Your task to perform on an android device: turn on wifi Image 0: 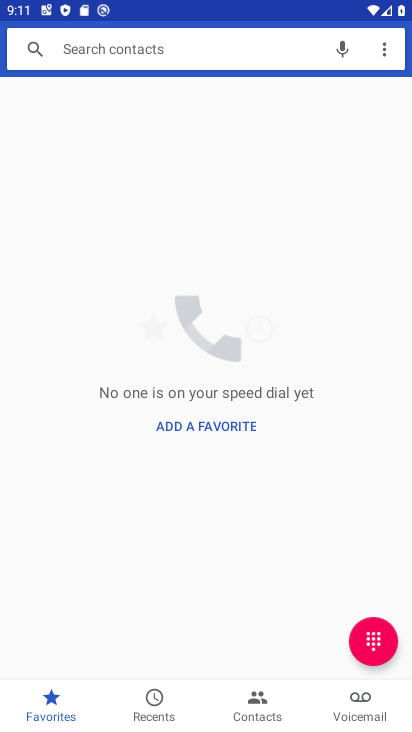
Step 0: press home button
Your task to perform on an android device: turn on wifi Image 1: 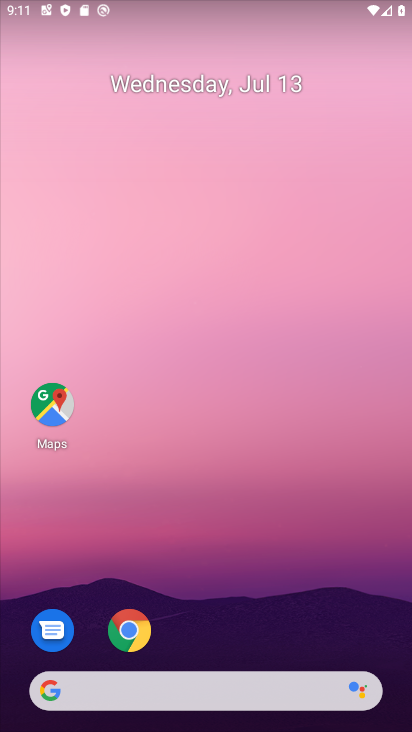
Step 1: drag from (258, 563) to (260, 156)
Your task to perform on an android device: turn on wifi Image 2: 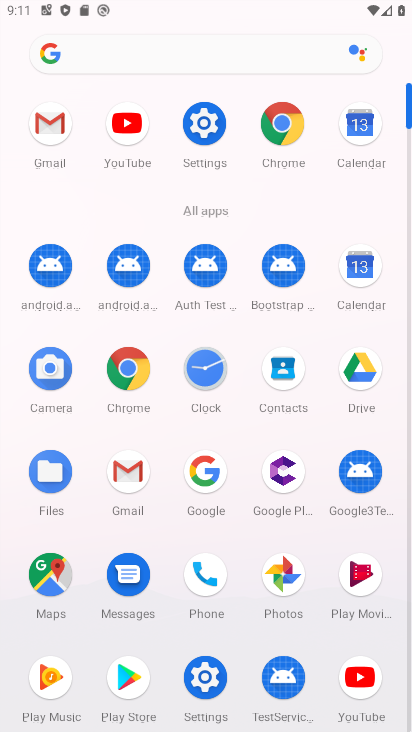
Step 2: click (197, 120)
Your task to perform on an android device: turn on wifi Image 3: 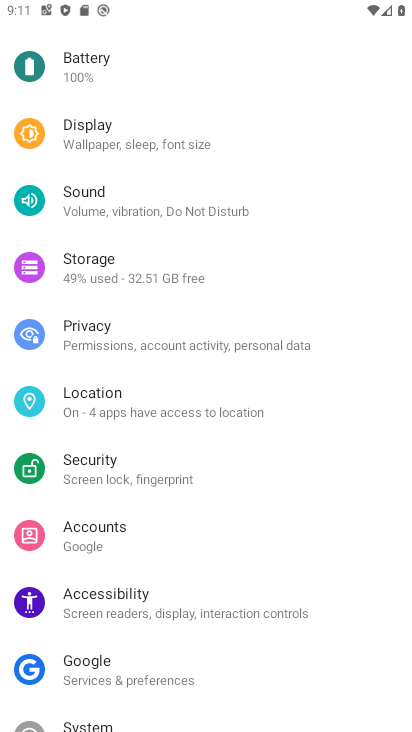
Step 3: drag from (120, 92) to (141, 289)
Your task to perform on an android device: turn on wifi Image 4: 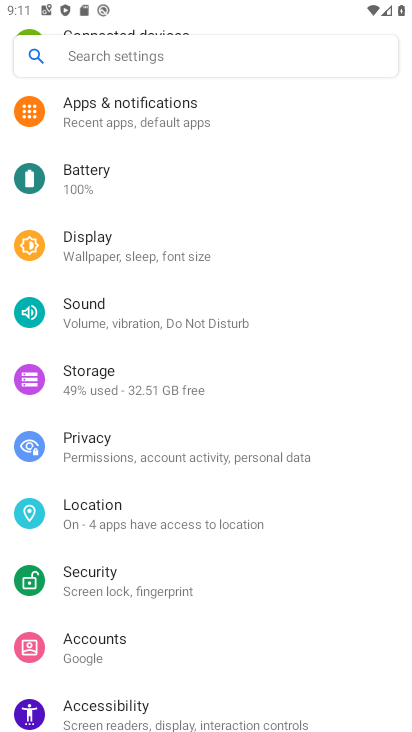
Step 4: drag from (218, 251) to (259, 482)
Your task to perform on an android device: turn on wifi Image 5: 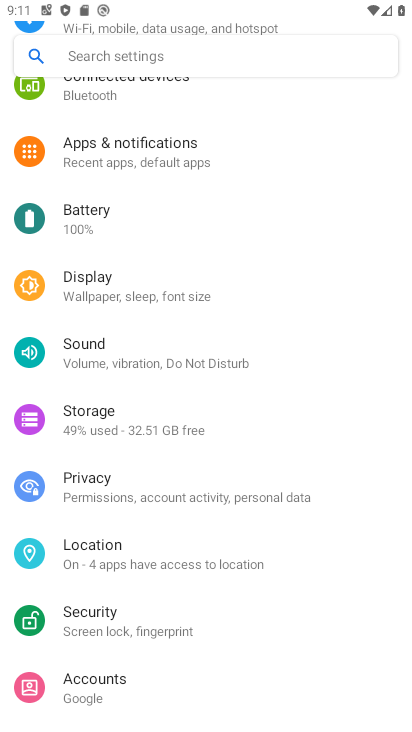
Step 5: drag from (277, 169) to (292, 417)
Your task to perform on an android device: turn on wifi Image 6: 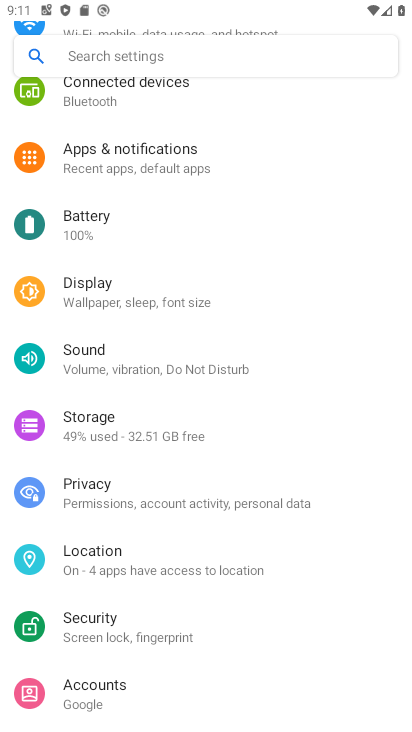
Step 6: drag from (151, 156) to (158, 424)
Your task to perform on an android device: turn on wifi Image 7: 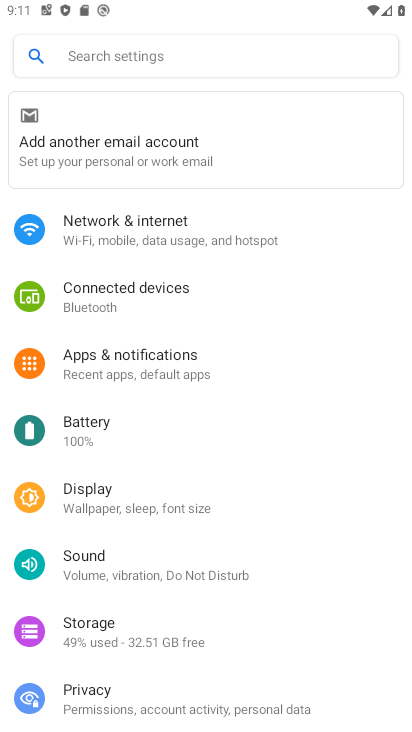
Step 7: click (222, 230)
Your task to perform on an android device: turn on wifi Image 8: 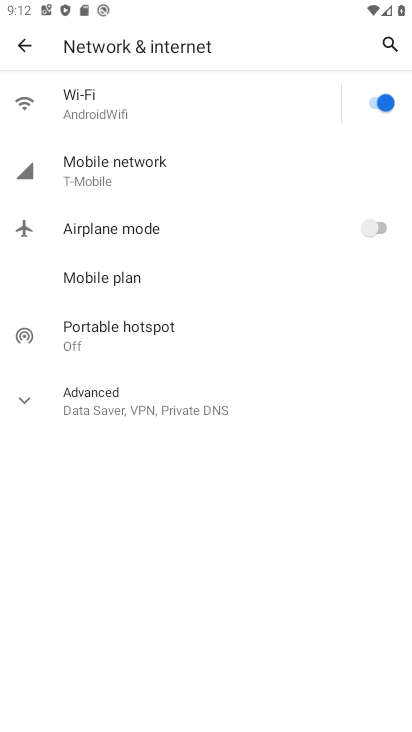
Step 8: task complete